Your task to perform on an android device: Go to location settings Image 0: 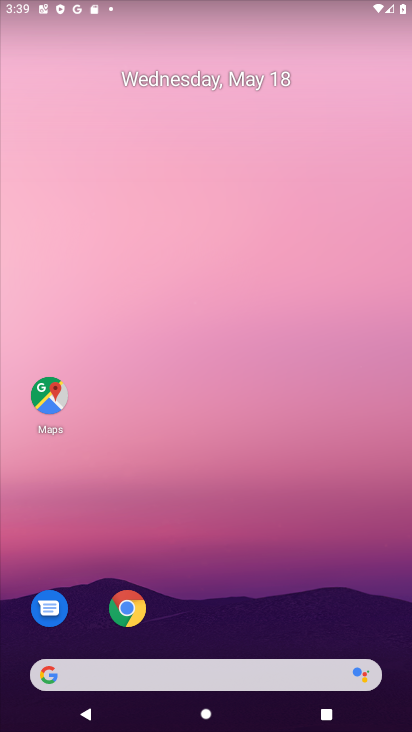
Step 0: drag from (300, 546) to (321, 170)
Your task to perform on an android device: Go to location settings Image 1: 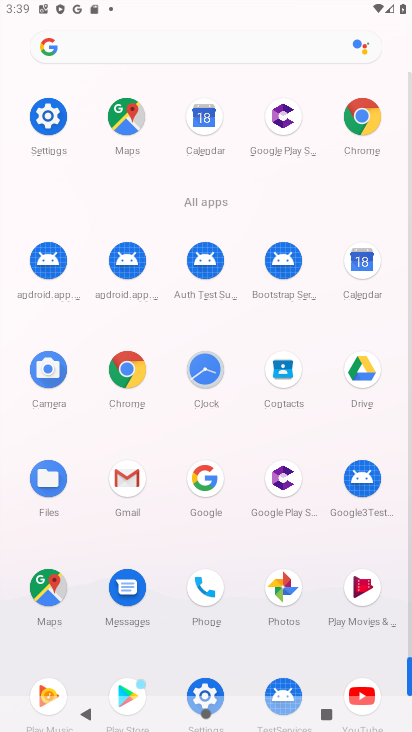
Step 1: click (41, 124)
Your task to perform on an android device: Go to location settings Image 2: 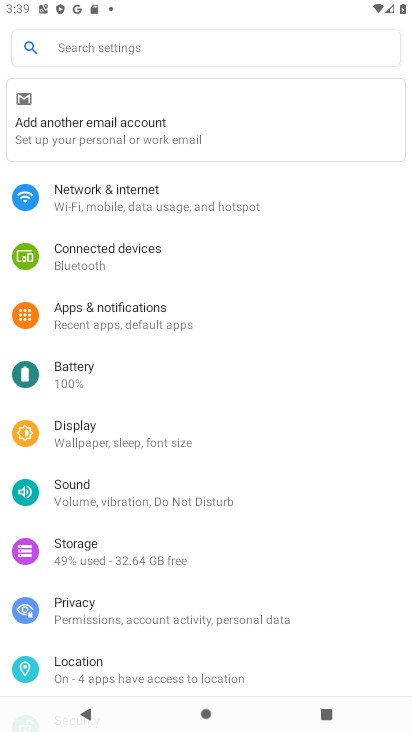
Step 2: click (138, 678)
Your task to perform on an android device: Go to location settings Image 3: 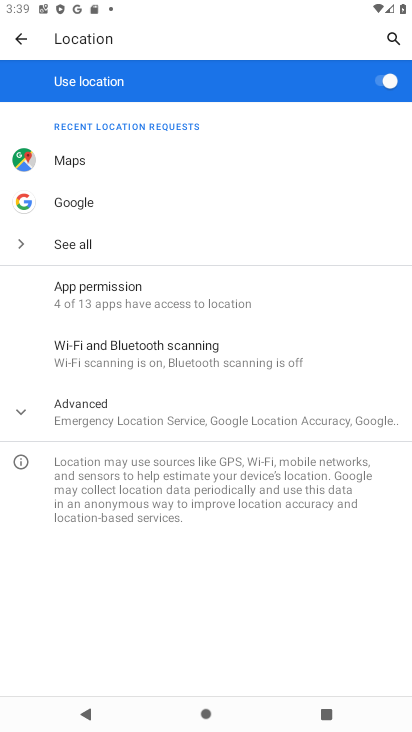
Step 3: task complete